Your task to perform on an android device: turn on notifications settings in the gmail app Image 0: 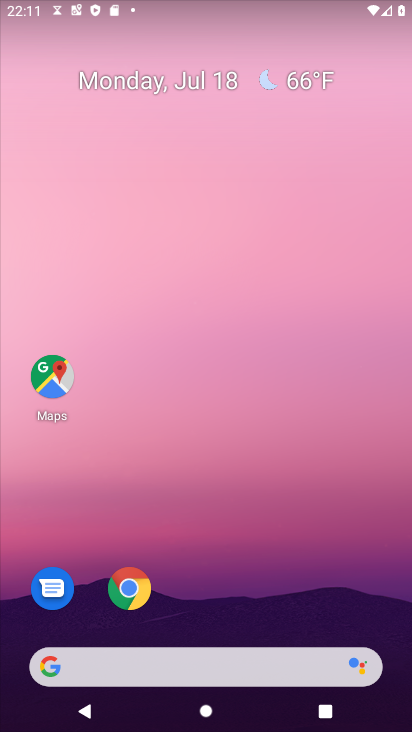
Step 0: press home button
Your task to perform on an android device: turn on notifications settings in the gmail app Image 1: 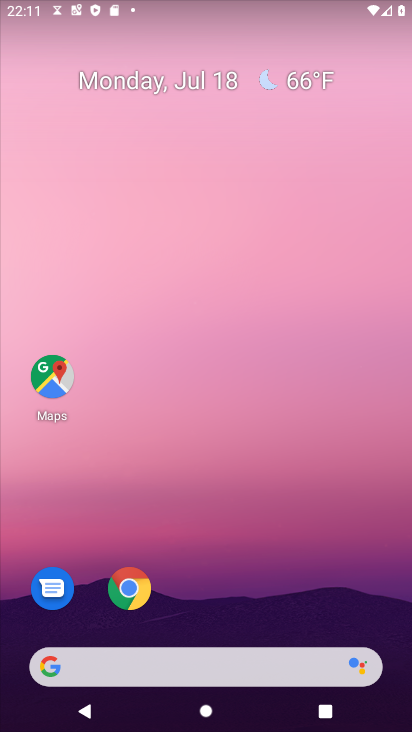
Step 1: drag from (216, 661) to (395, 24)
Your task to perform on an android device: turn on notifications settings in the gmail app Image 2: 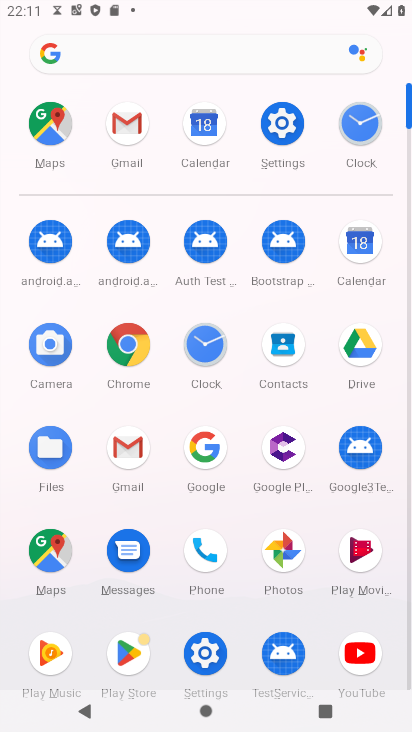
Step 2: click (125, 123)
Your task to perform on an android device: turn on notifications settings in the gmail app Image 3: 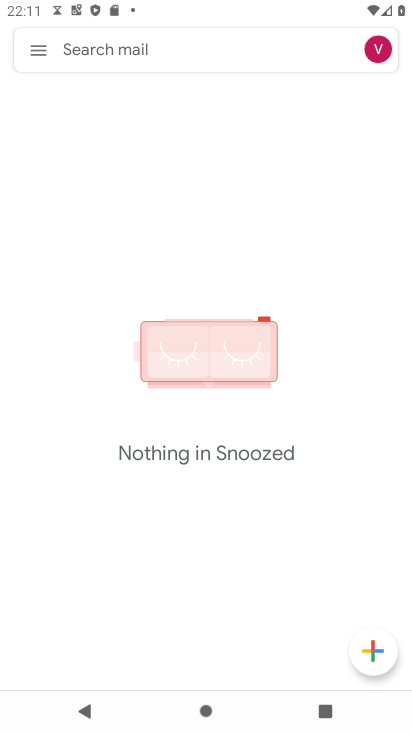
Step 3: click (40, 51)
Your task to perform on an android device: turn on notifications settings in the gmail app Image 4: 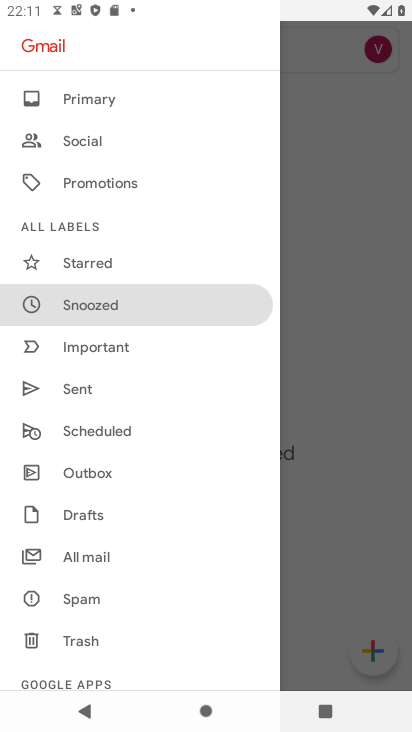
Step 4: drag from (150, 647) to (243, 87)
Your task to perform on an android device: turn on notifications settings in the gmail app Image 5: 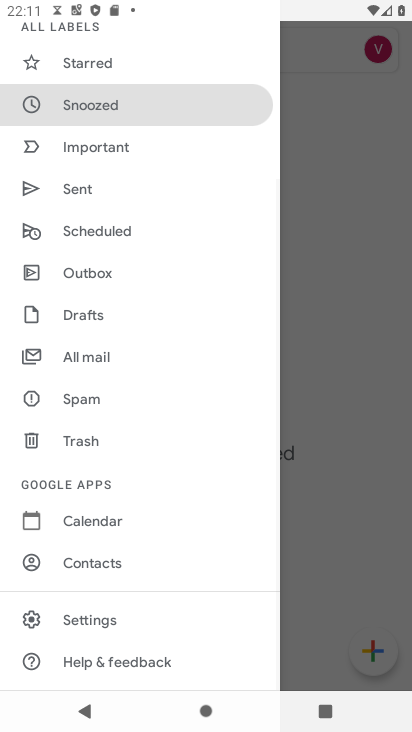
Step 5: click (84, 619)
Your task to perform on an android device: turn on notifications settings in the gmail app Image 6: 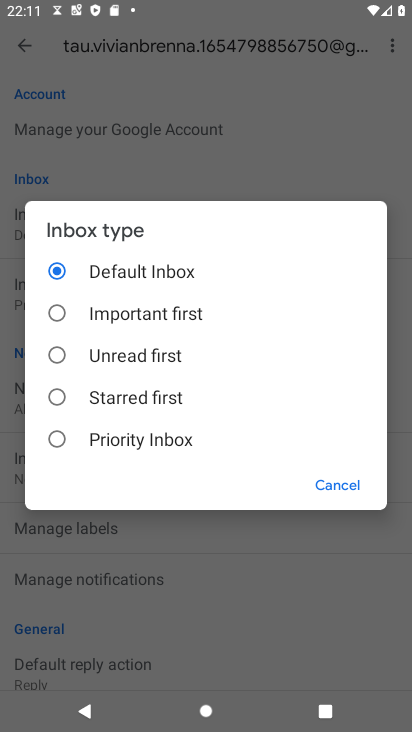
Step 6: click (346, 480)
Your task to perform on an android device: turn on notifications settings in the gmail app Image 7: 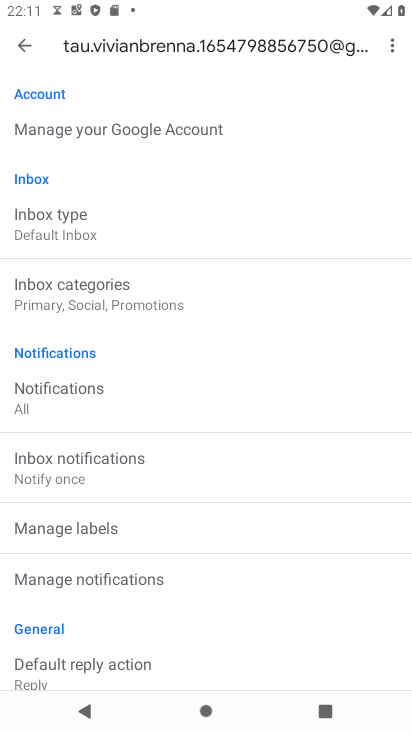
Step 7: click (67, 406)
Your task to perform on an android device: turn on notifications settings in the gmail app Image 8: 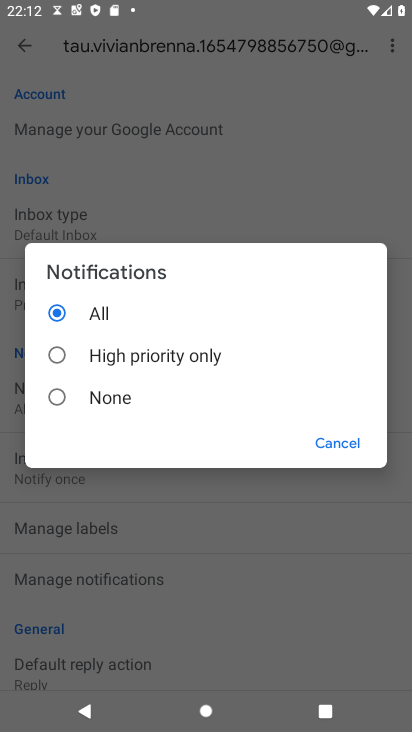
Step 8: task complete